Your task to perform on an android device: set an alarm Image 0: 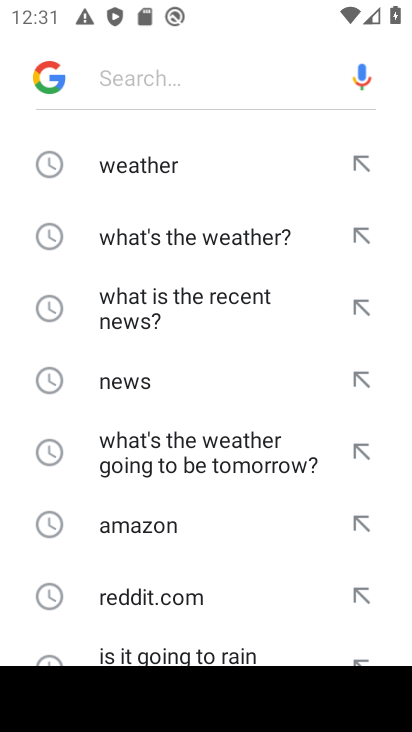
Step 0: press home button
Your task to perform on an android device: set an alarm Image 1: 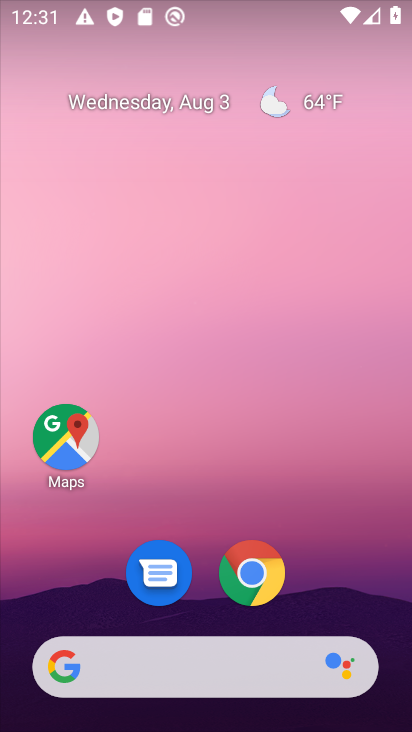
Step 1: drag from (207, 599) to (258, 86)
Your task to perform on an android device: set an alarm Image 2: 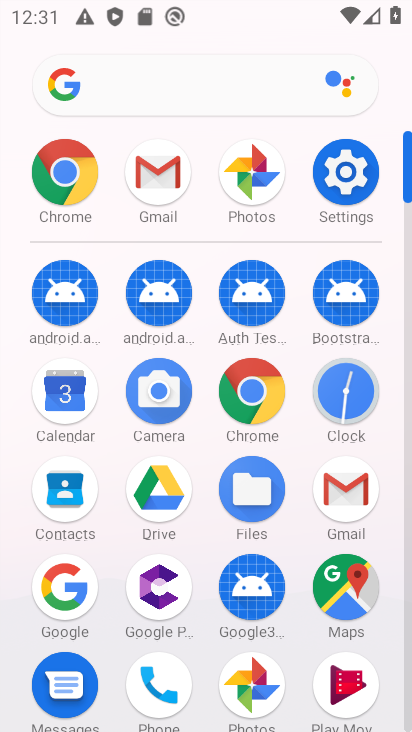
Step 2: drag from (215, 456) to (250, 215)
Your task to perform on an android device: set an alarm Image 3: 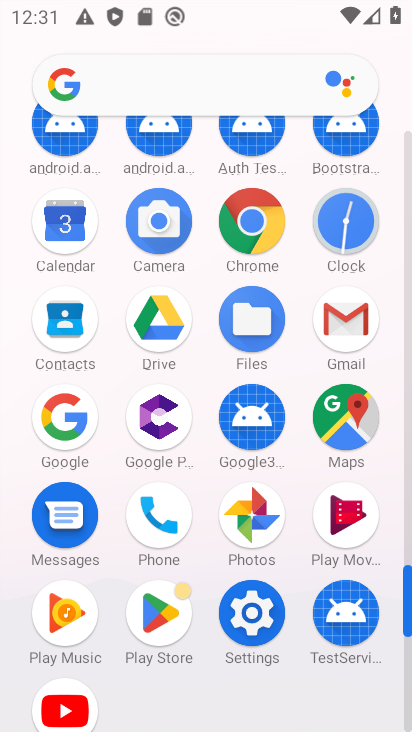
Step 3: click (343, 229)
Your task to perform on an android device: set an alarm Image 4: 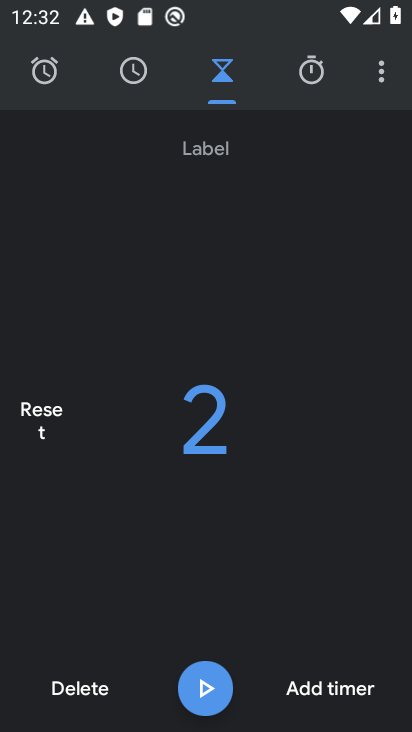
Step 4: click (56, 67)
Your task to perform on an android device: set an alarm Image 5: 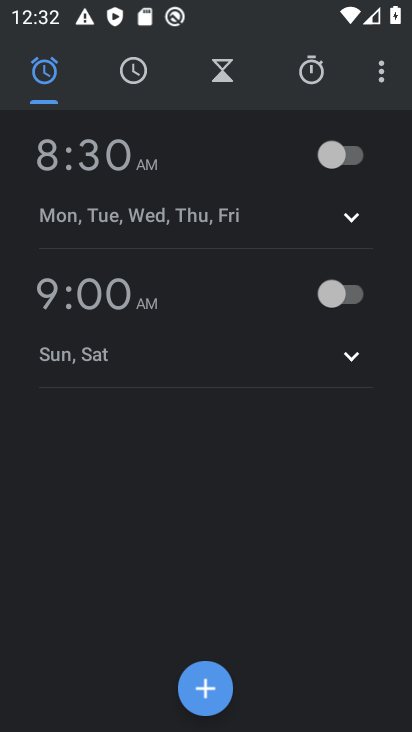
Step 5: click (206, 694)
Your task to perform on an android device: set an alarm Image 6: 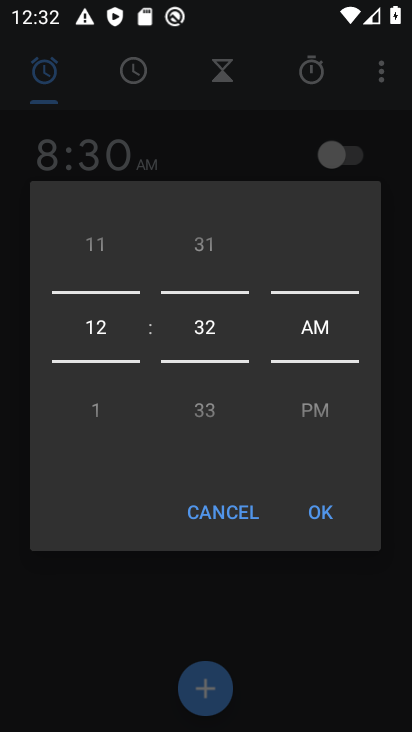
Step 6: click (327, 509)
Your task to perform on an android device: set an alarm Image 7: 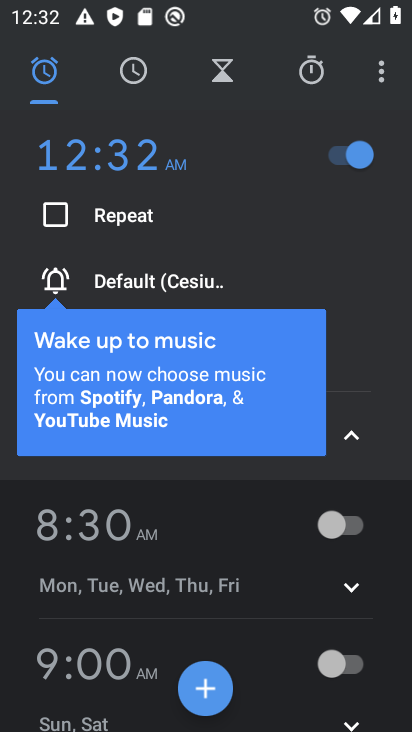
Step 7: task complete